Your task to perform on an android device: check the backup settings in the google photos Image 0: 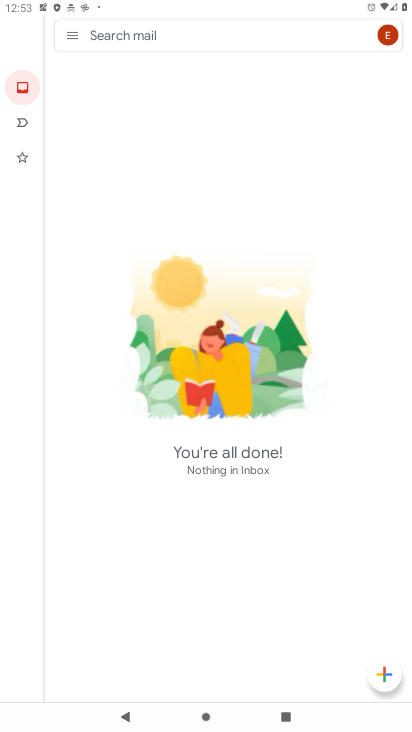
Step 0: press home button
Your task to perform on an android device: check the backup settings in the google photos Image 1: 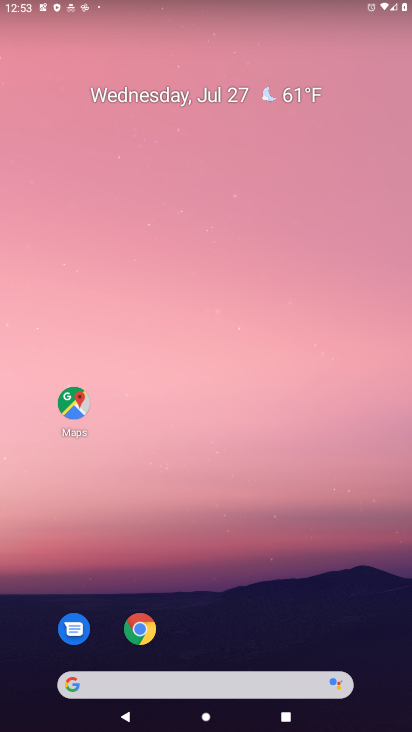
Step 1: drag from (270, 628) to (270, 132)
Your task to perform on an android device: check the backup settings in the google photos Image 2: 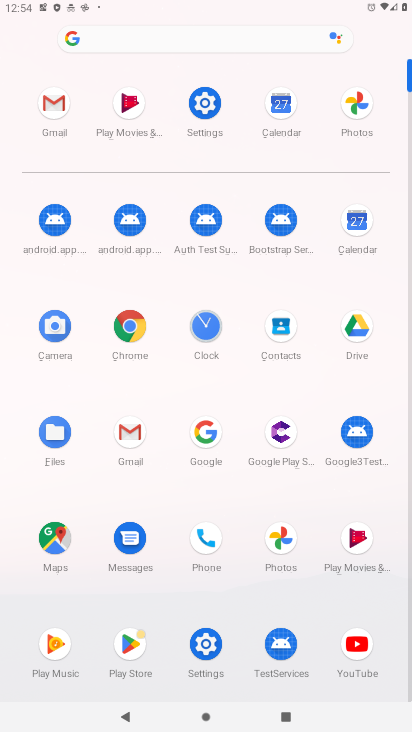
Step 2: click (290, 550)
Your task to perform on an android device: check the backup settings in the google photos Image 3: 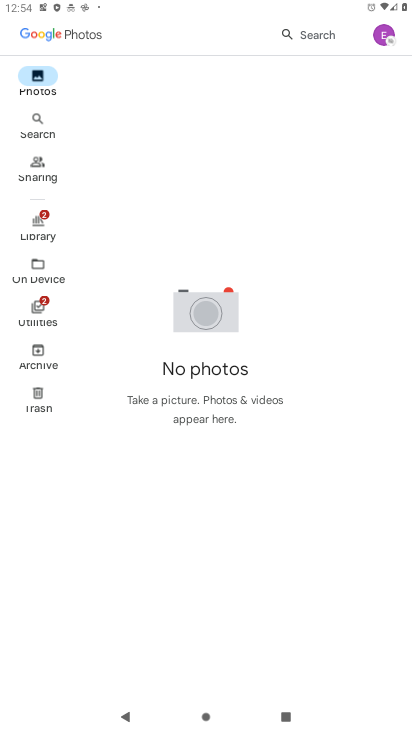
Step 3: task complete